Your task to perform on an android device: Open eBay Image 0: 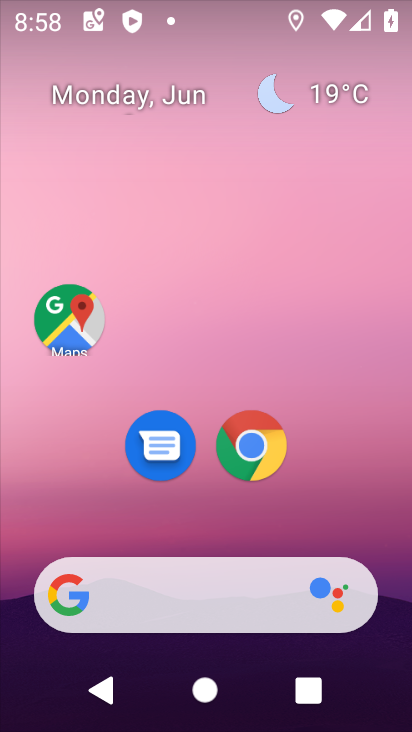
Step 0: press home button
Your task to perform on an android device: Open eBay Image 1: 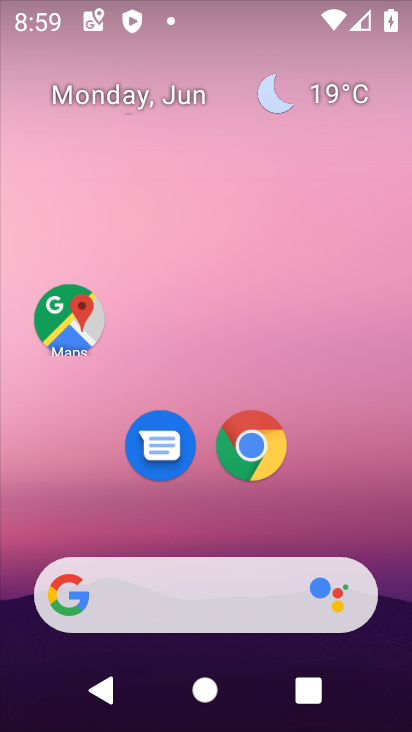
Step 1: click (253, 445)
Your task to perform on an android device: Open eBay Image 2: 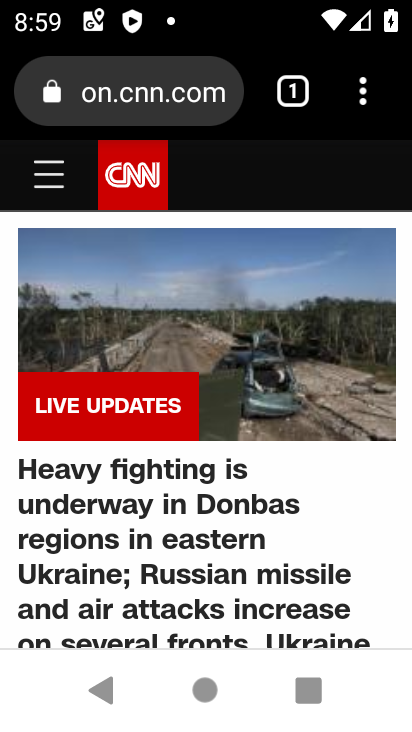
Step 2: click (285, 97)
Your task to perform on an android device: Open eBay Image 3: 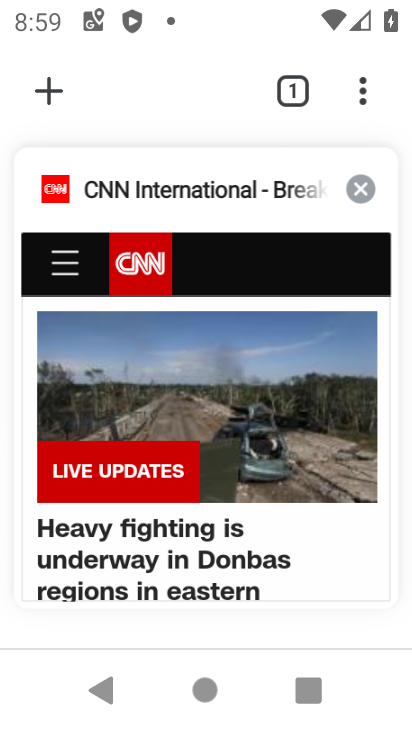
Step 3: click (362, 179)
Your task to perform on an android device: Open eBay Image 4: 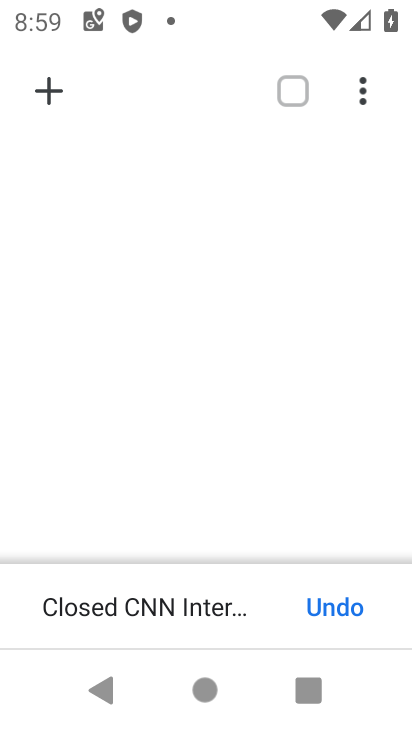
Step 4: click (60, 99)
Your task to perform on an android device: Open eBay Image 5: 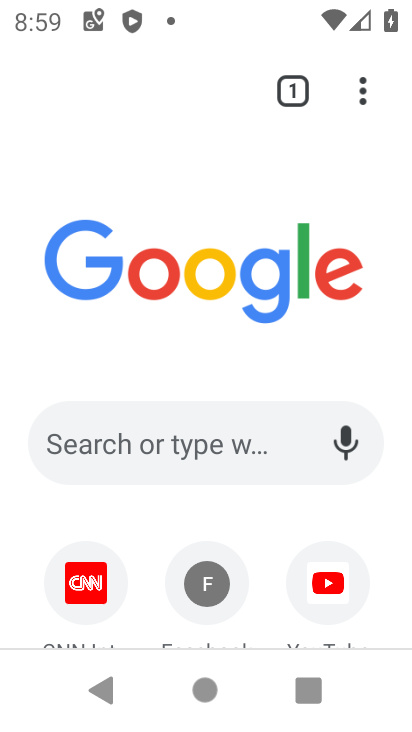
Step 5: click (184, 452)
Your task to perform on an android device: Open eBay Image 6: 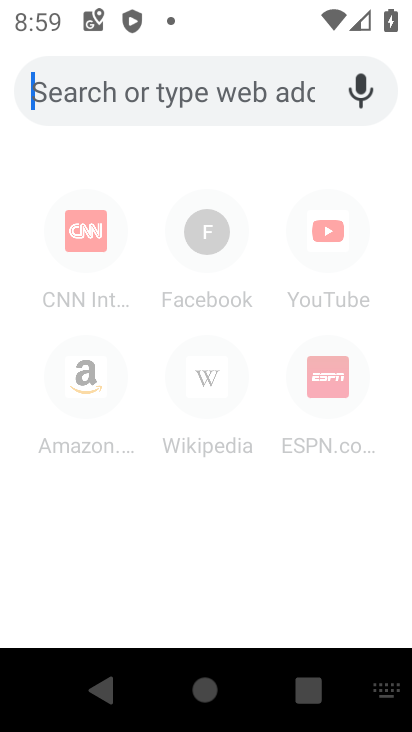
Step 6: type "ebay"
Your task to perform on an android device: Open eBay Image 7: 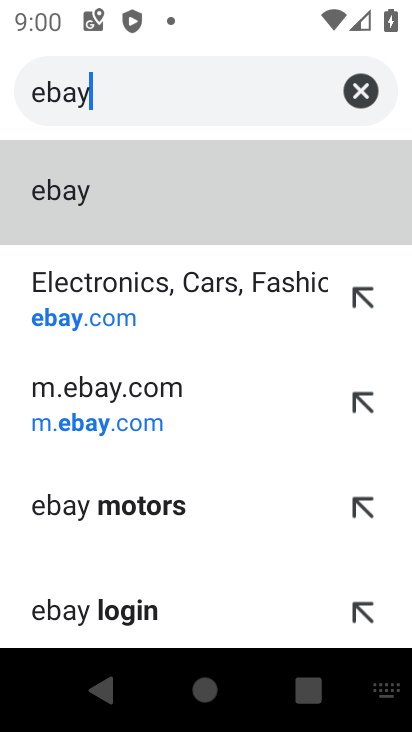
Step 7: click (163, 297)
Your task to perform on an android device: Open eBay Image 8: 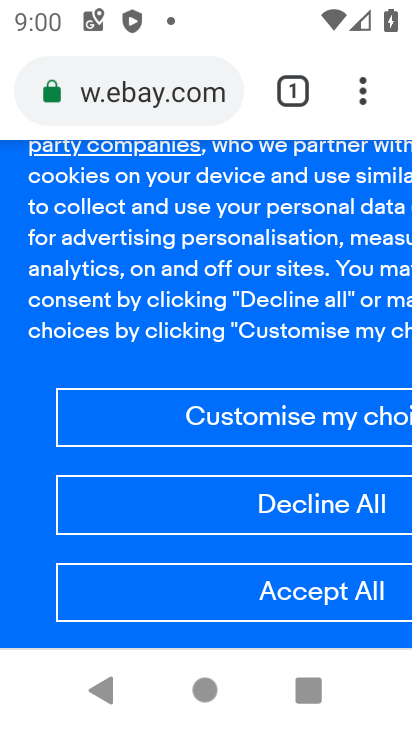
Step 8: click (321, 602)
Your task to perform on an android device: Open eBay Image 9: 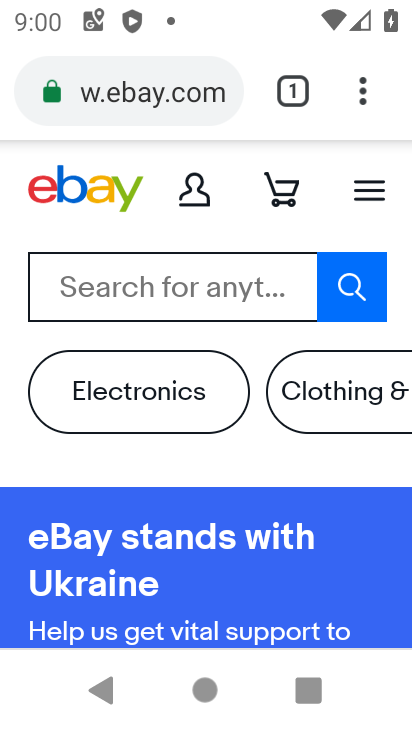
Step 9: task complete